Your task to perform on an android device: View the shopping cart on target.com. Image 0: 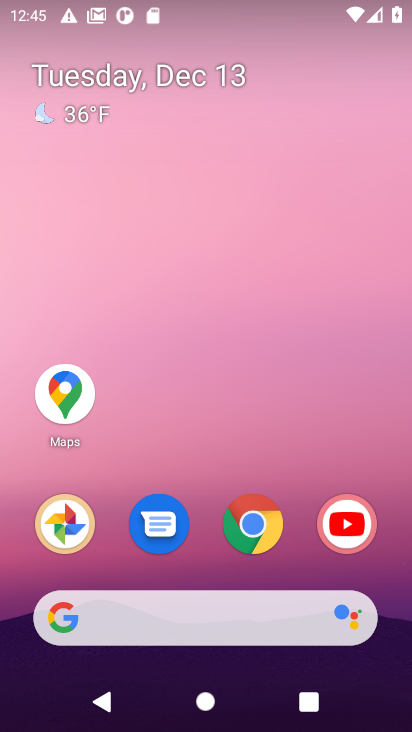
Step 0: click (255, 531)
Your task to perform on an android device: View the shopping cart on target.com. Image 1: 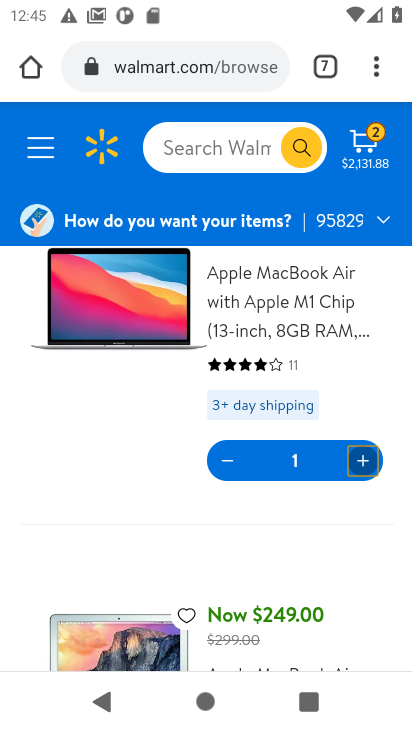
Step 1: click (179, 62)
Your task to perform on an android device: View the shopping cart on target.com. Image 2: 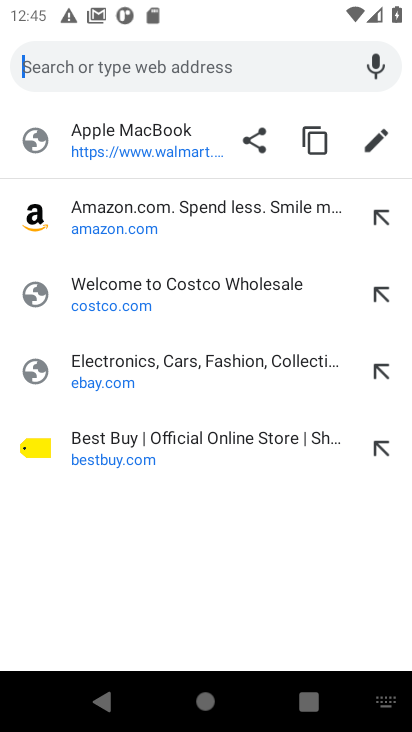
Step 2: type "target.com"
Your task to perform on an android device: View the shopping cart on target.com. Image 3: 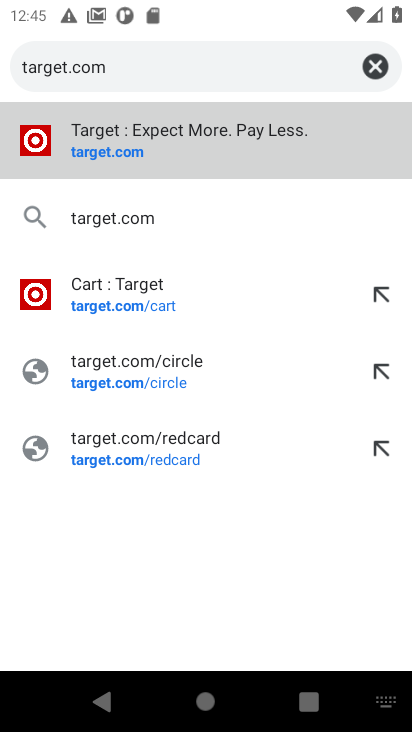
Step 3: click (85, 159)
Your task to perform on an android device: View the shopping cart on target.com. Image 4: 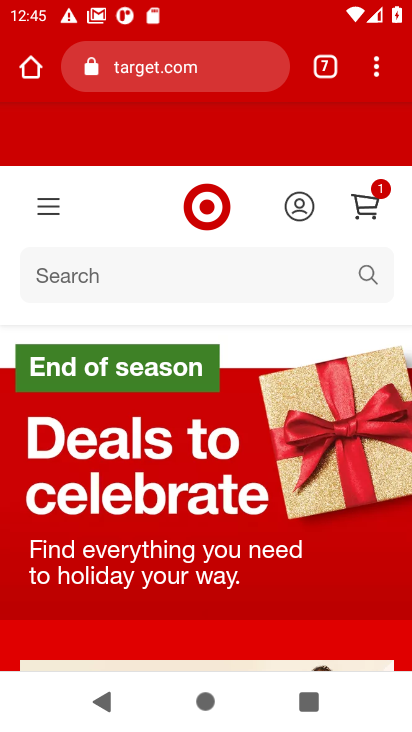
Step 4: click (372, 206)
Your task to perform on an android device: View the shopping cart on target.com. Image 5: 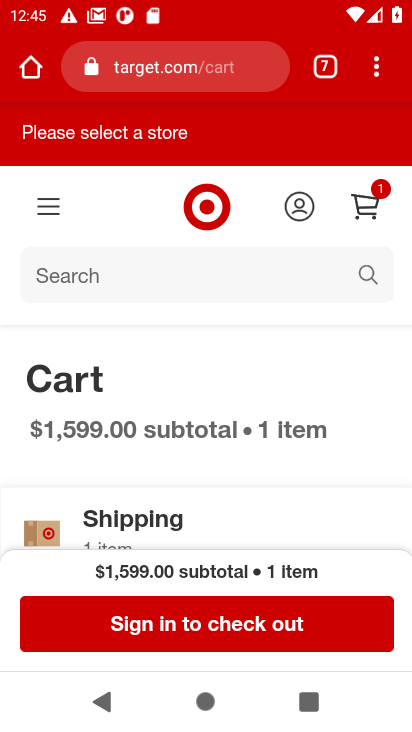
Step 5: task complete